Your task to perform on an android device: open chrome privacy settings Image 0: 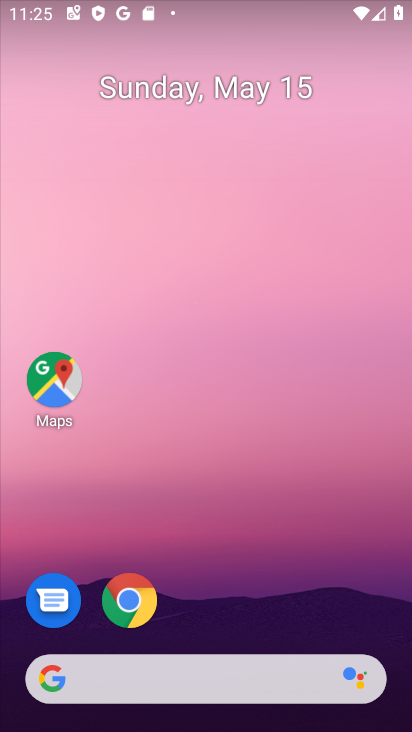
Step 0: click (137, 617)
Your task to perform on an android device: open chrome privacy settings Image 1: 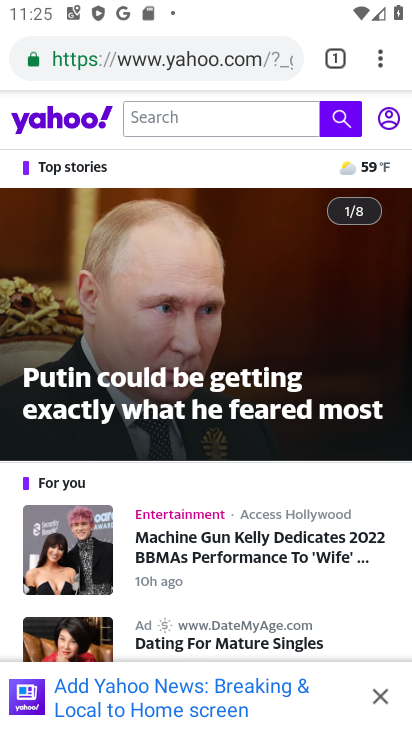
Step 1: click (389, 58)
Your task to perform on an android device: open chrome privacy settings Image 2: 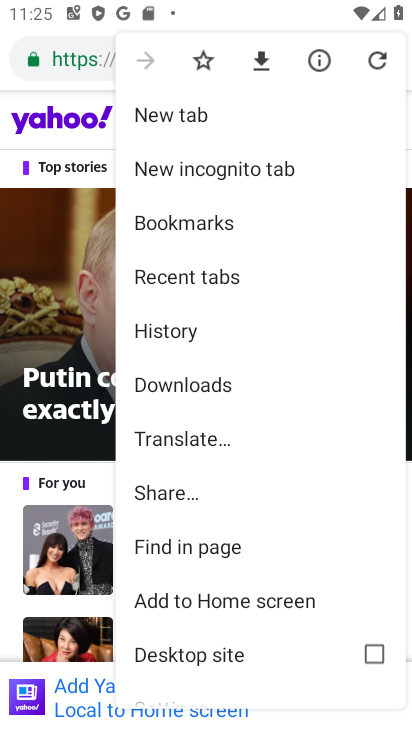
Step 2: drag from (205, 626) to (180, 64)
Your task to perform on an android device: open chrome privacy settings Image 3: 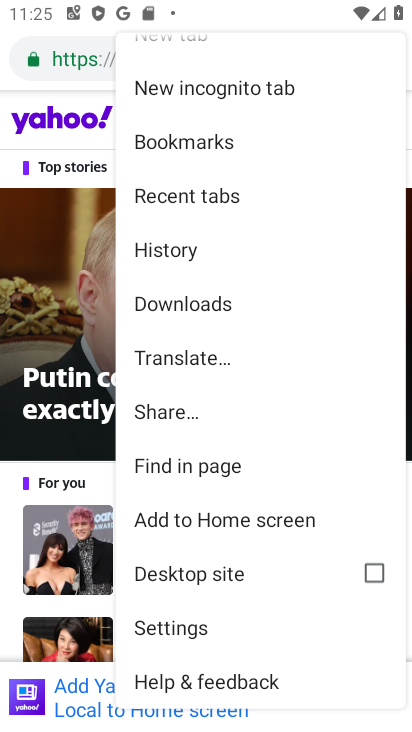
Step 3: click (185, 632)
Your task to perform on an android device: open chrome privacy settings Image 4: 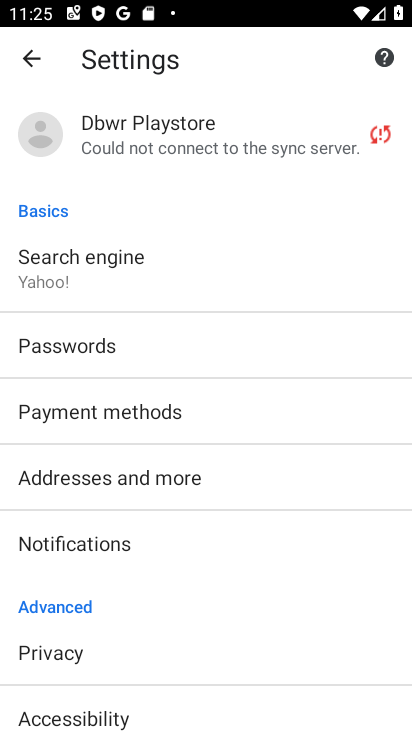
Step 4: click (87, 652)
Your task to perform on an android device: open chrome privacy settings Image 5: 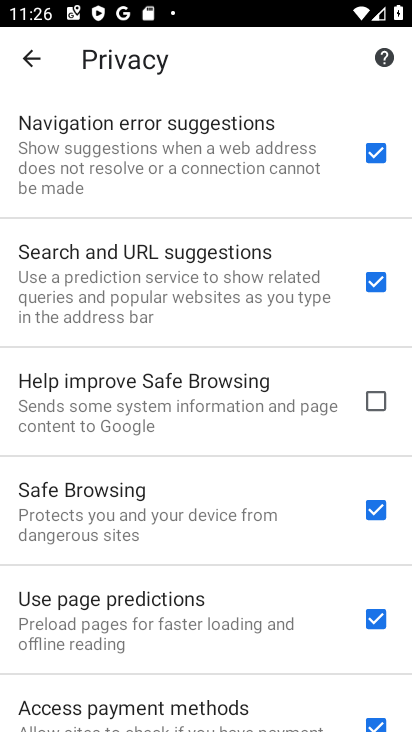
Step 5: task complete